Your task to perform on an android device: turn on translation in the chrome app Image 0: 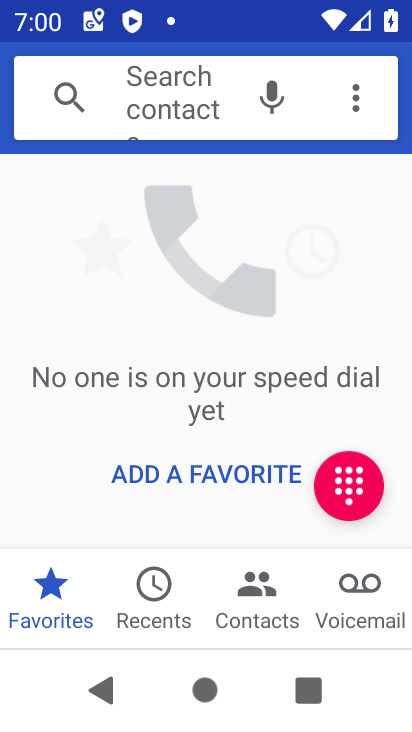
Step 0: press home button
Your task to perform on an android device: turn on translation in the chrome app Image 1: 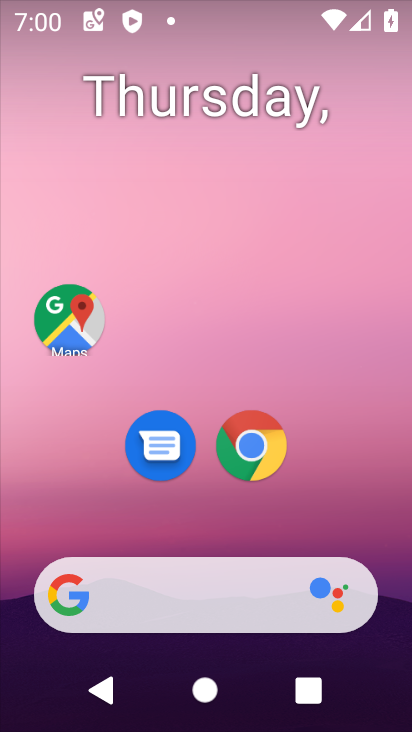
Step 1: click (266, 440)
Your task to perform on an android device: turn on translation in the chrome app Image 2: 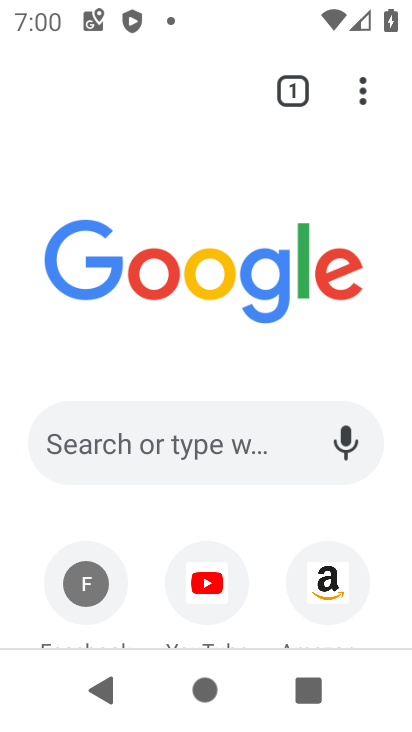
Step 2: click (358, 84)
Your task to perform on an android device: turn on translation in the chrome app Image 3: 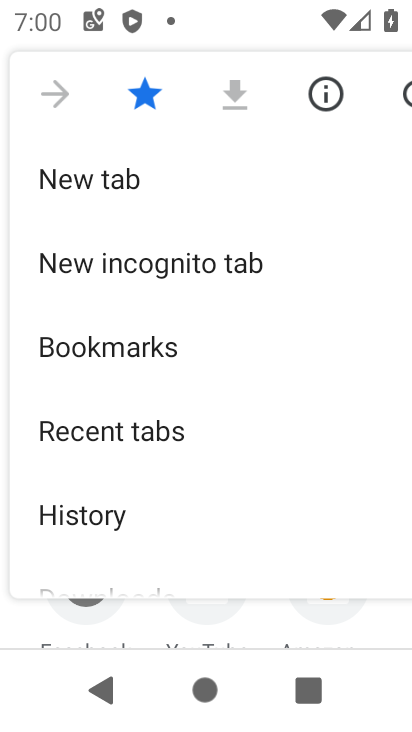
Step 3: drag from (237, 500) to (167, 172)
Your task to perform on an android device: turn on translation in the chrome app Image 4: 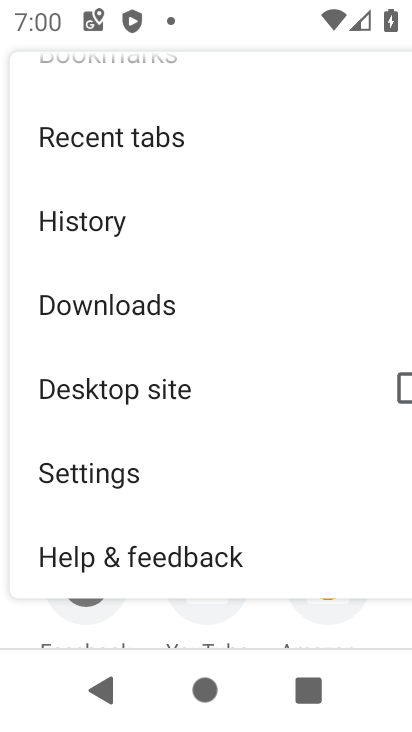
Step 4: click (103, 477)
Your task to perform on an android device: turn on translation in the chrome app Image 5: 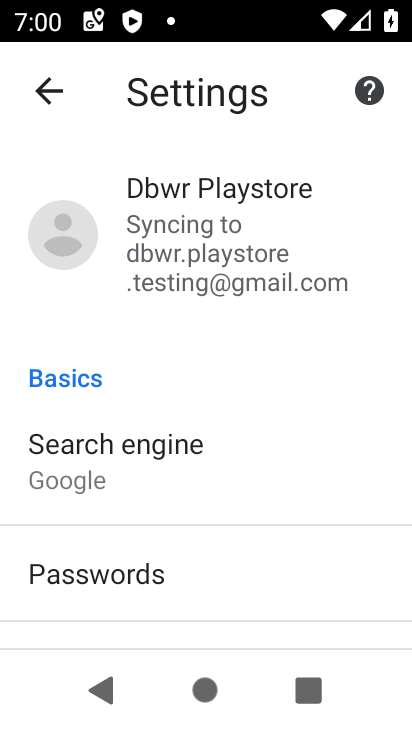
Step 5: drag from (207, 562) to (143, 111)
Your task to perform on an android device: turn on translation in the chrome app Image 6: 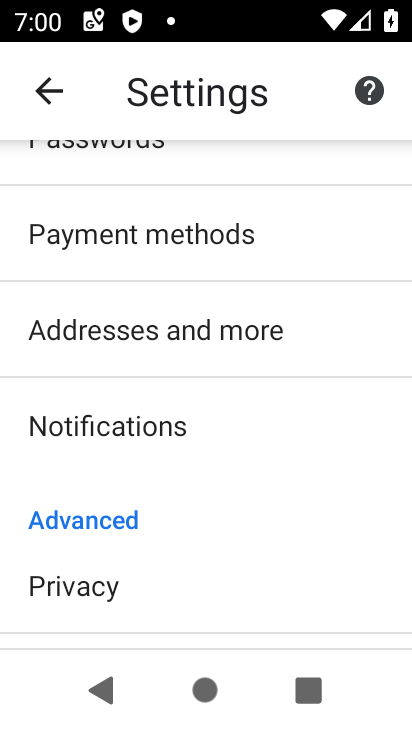
Step 6: drag from (211, 428) to (166, 133)
Your task to perform on an android device: turn on translation in the chrome app Image 7: 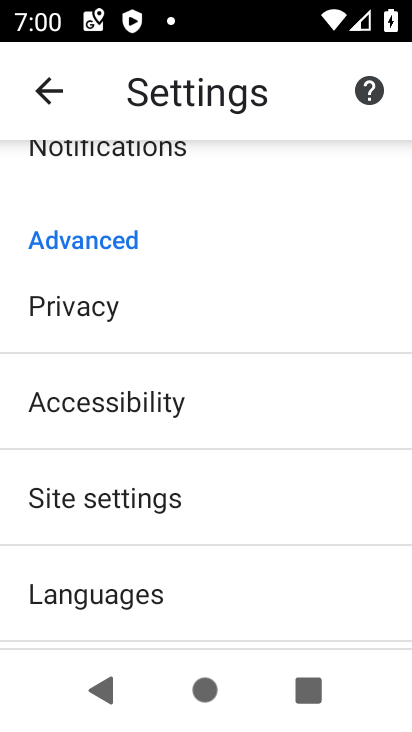
Step 7: click (128, 585)
Your task to perform on an android device: turn on translation in the chrome app Image 8: 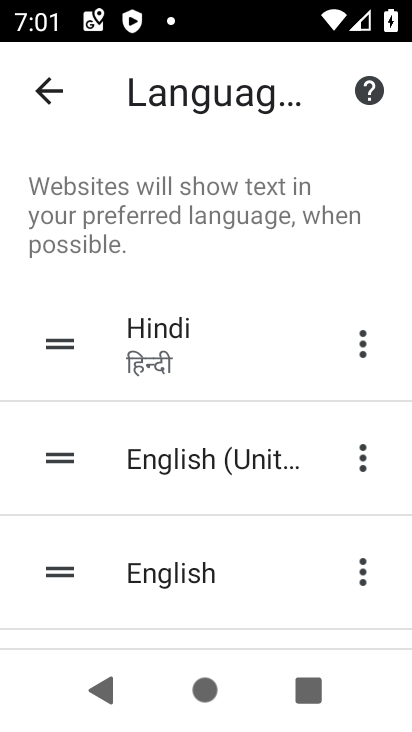
Step 8: drag from (271, 446) to (205, 56)
Your task to perform on an android device: turn on translation in the chrome app Image 9: 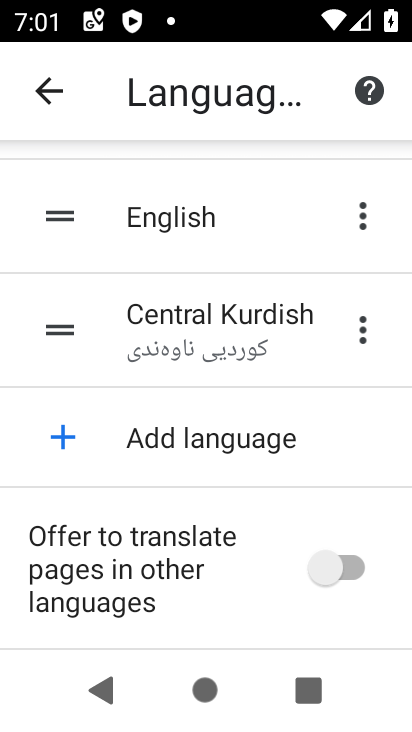
Step 9: click (335, 554)
Your task to perform on an android device: turn on translation in the chrome app Image 10: 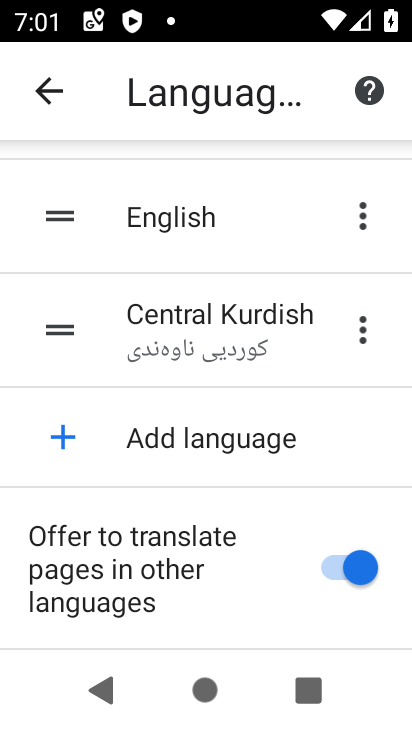
Step 10: task complete